Your task to perform on an android device: Open calendar and show me the first week of next month Image 0: 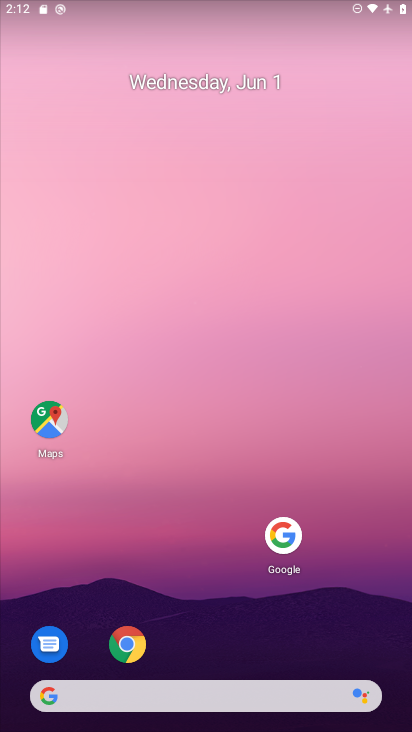
Step 0: press home button
Your task to perform on an android device: Open calendar and show me the first week of next month Image 1: 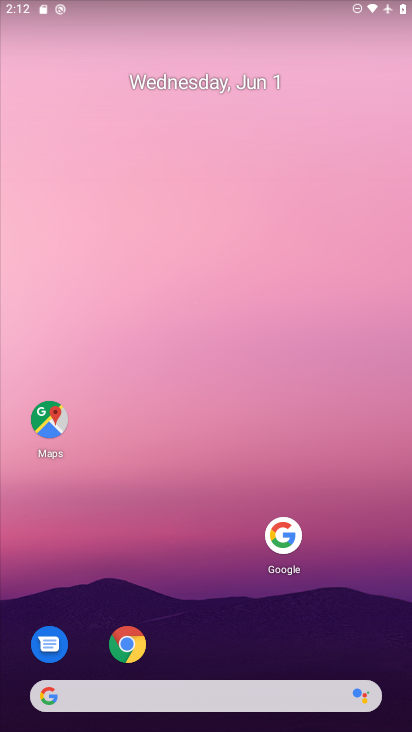
Step 1: drag from (180, 694) to (335, 65)
Your task to perform on an android device: Open calendar and show me the first week of next month Image 2: 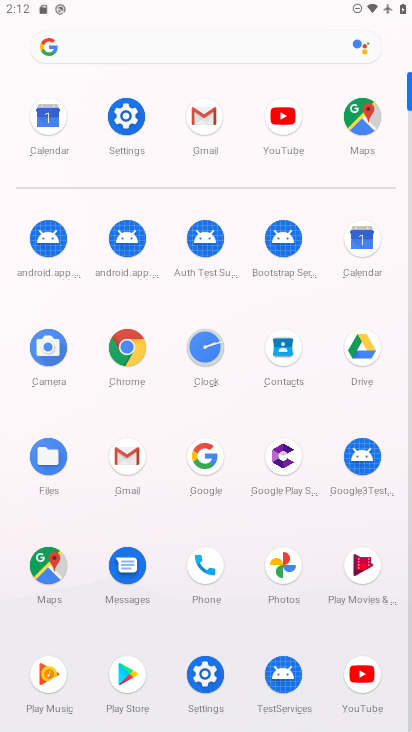
Step 2: click (355, 238)
Your task to perform on an android device: Open calendar and show me the first week of next month Image 3: 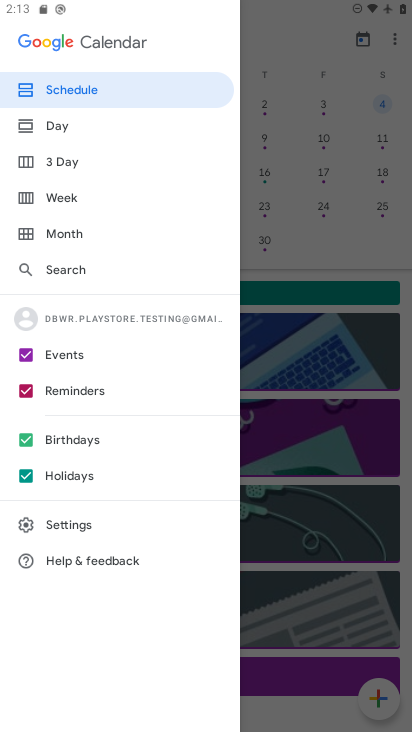
Step 3: drag from (247, 337) to (99, 349)
Your task to perform on an android device: Open calendar and show me the first week of next month Image 4: 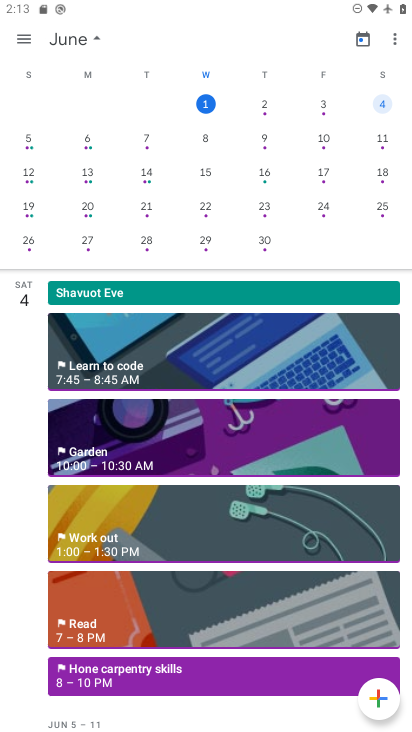
Step 4: drag from (377, 167) to (44, 138)
Your task to perform on an android device: Open calendar and show me the first week of next month Image 5: 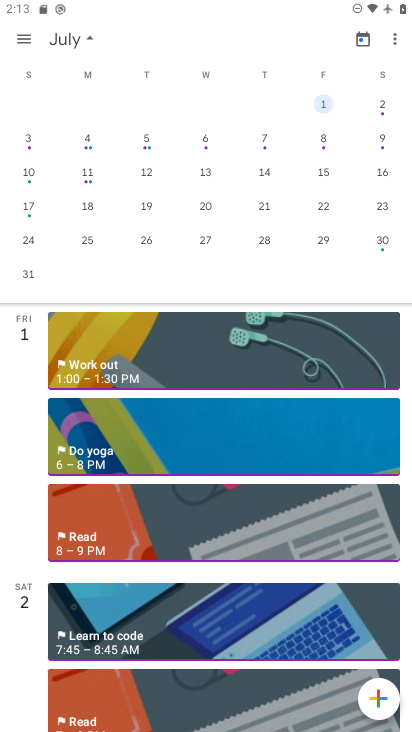
Step 5: click (33, 139)
Your task to perform on an android device: Open calendar and show me the first week of next month Image 6: 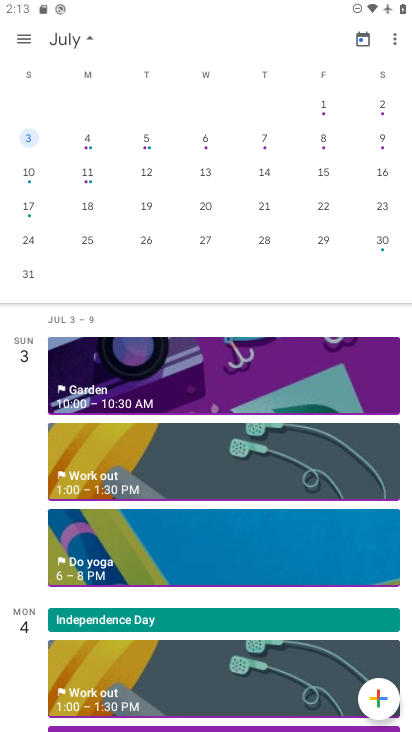
Step 6: click (24, 39)
Your task to perform on an android device: Open calendar and show me the first week of next month Image 7: 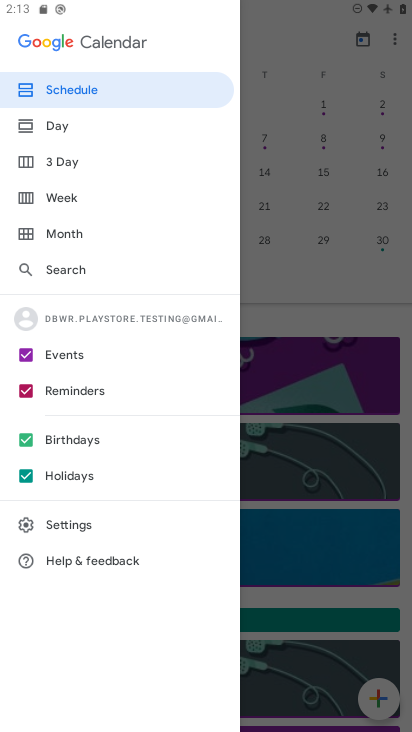
Step 7: click (73, 197)
Your task to perform on an android device: Open calendar and show me the first week of next month Image 8: 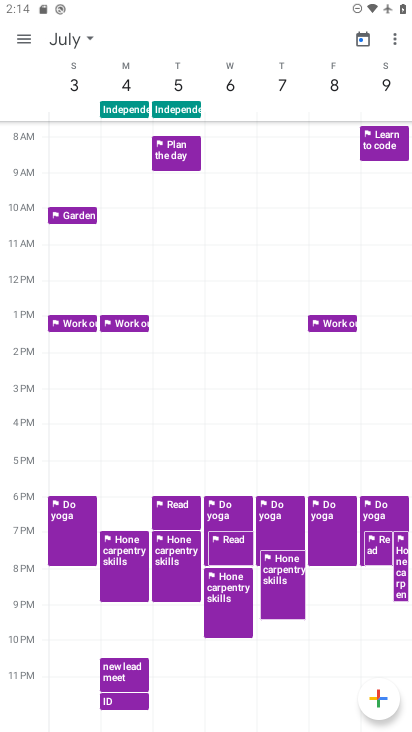
Step 8: task complete